Your task to perform on an android device: Search for vegetarian restaurants on Maps Image 0: 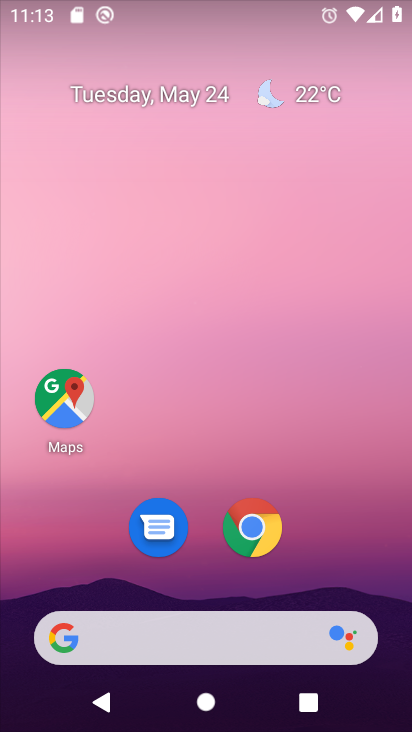
Step 0: press home button
Your task to perform on an android device: Search for vegetarian restaurants on Maps Image 1: 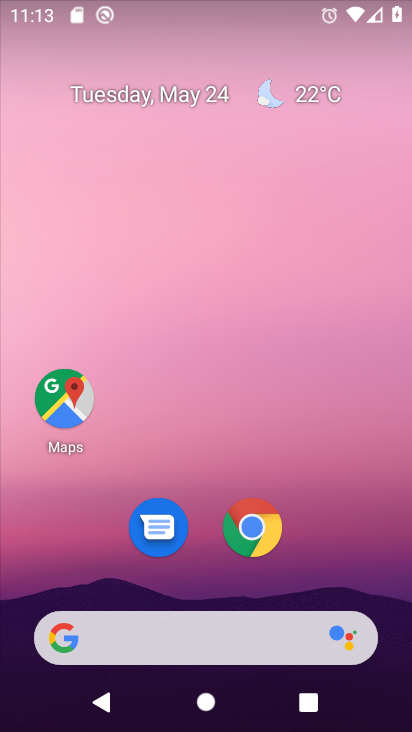
Step 1: click (73, 403)
Your task to perform on an android device: Search for vegetarian restaurants on Maps Image 2: 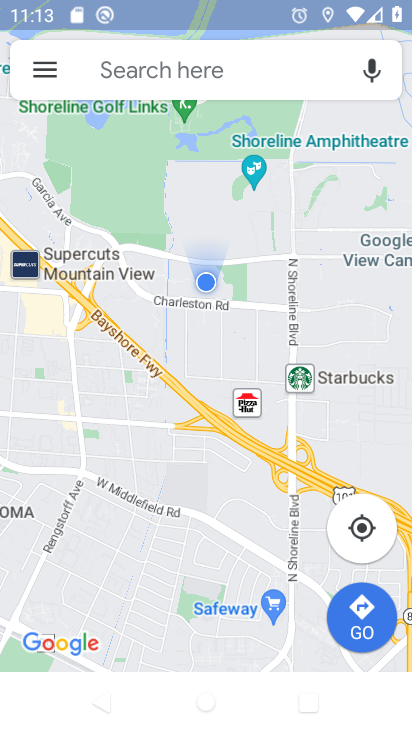
Step 2: click (148, 71)
Your task to perform on an android device: Search for vegetarian restaurants on Maps Image 3: 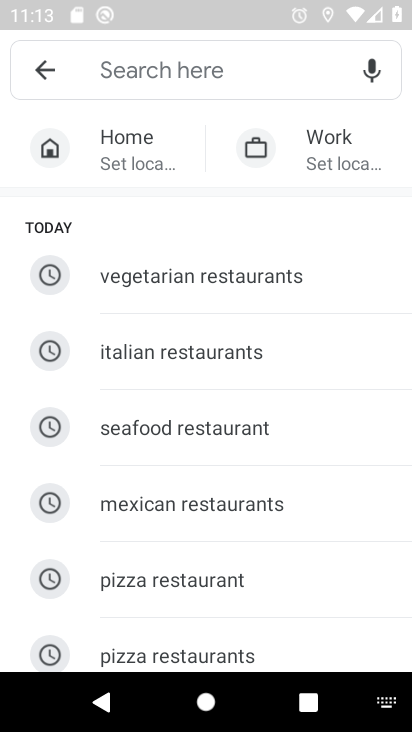
Step 3: click (174, 275)
Your task to perform on an android device: Search for vegetarian restaurants on Maps Image 4: 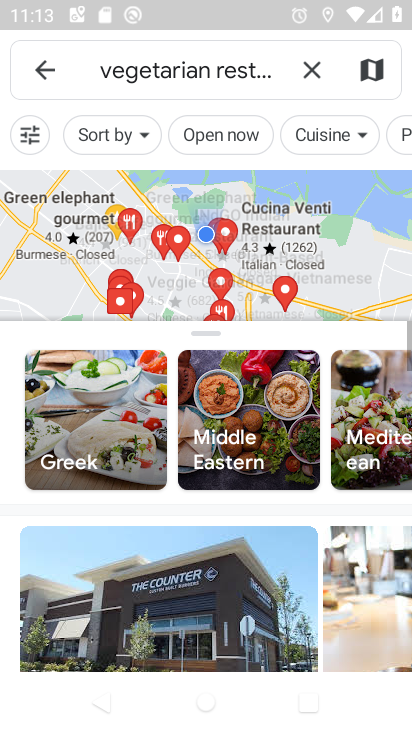
Step 4: task complete